Your task to perform on an android device: Go to location settings Image 0: 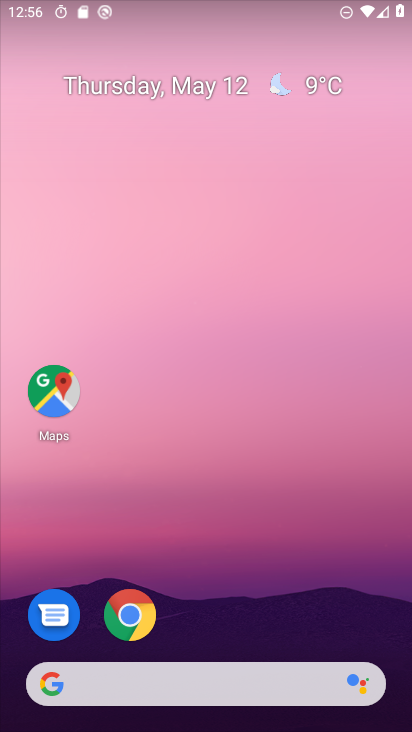
Step 0: drag from (313, 562) to (258, 108)
Your task to perform on an android device: Go to location settings Image 1: 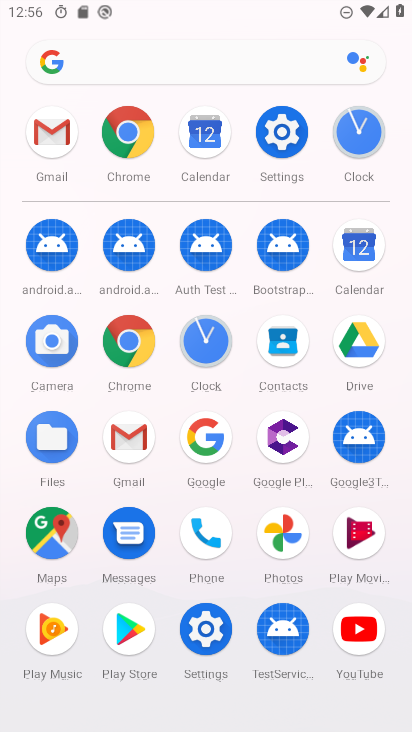
Step 1: click (283, 129)
Your task to perform on an android device: Go to location settings Image 2: 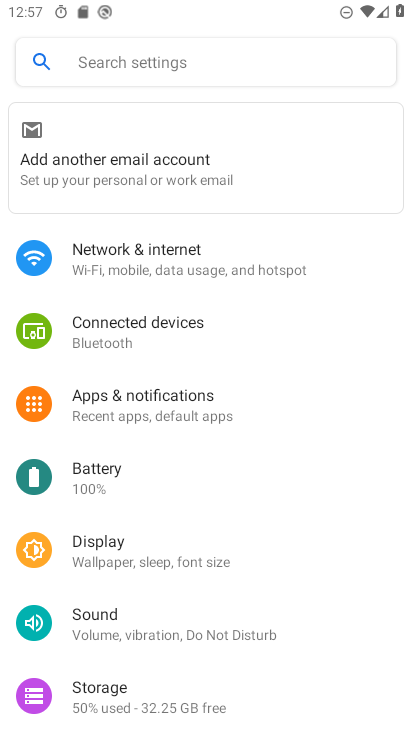
Step 2: drag from (240, 593) to (287, 216)
Your task to perform on an android device: Go to location settings Image 3: 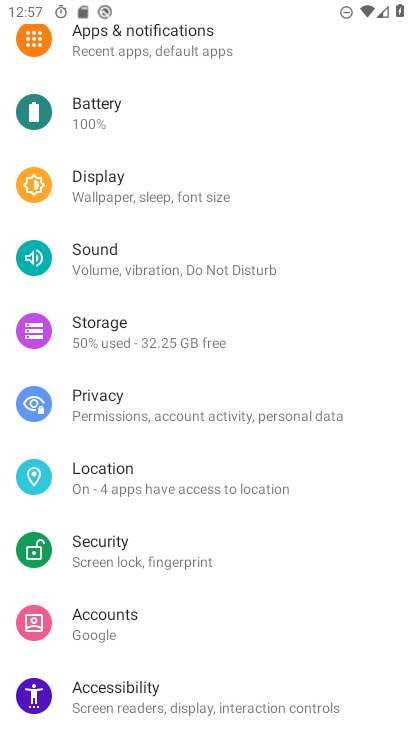
Step 3: click (169, 488)
Your task to perform on an android device: Go to location settings Image 4: 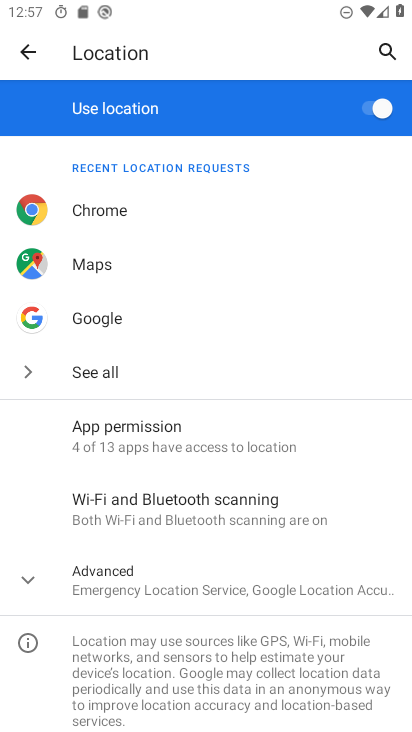
Step 4: task complete